Your task to perform on an android device: search for starred emails in the gmail app Image 0: 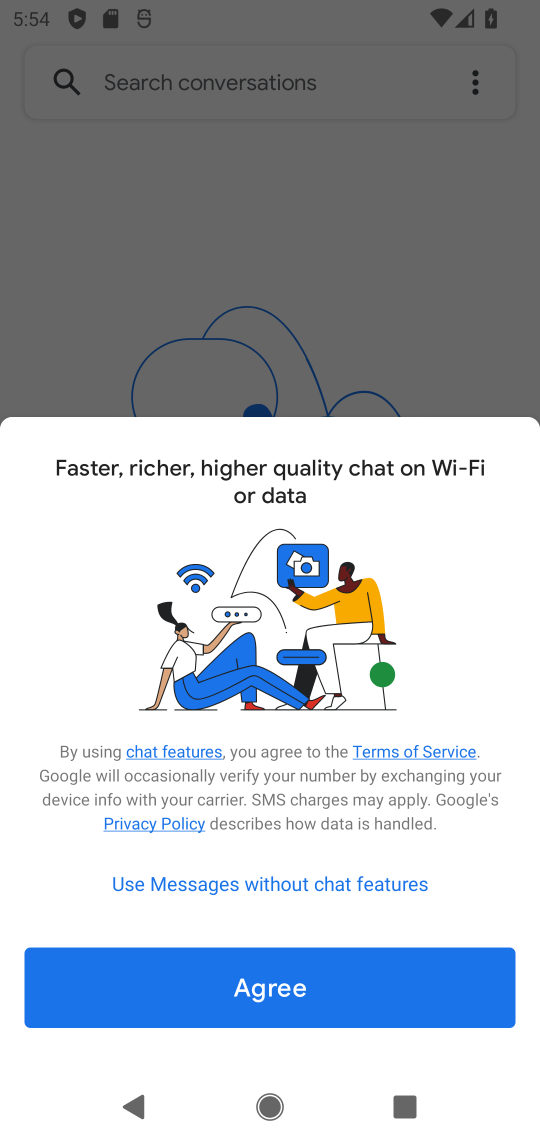
Step 0: press home button
Your task to perform on an android device: search for starred emails in the gmail app Image 1: 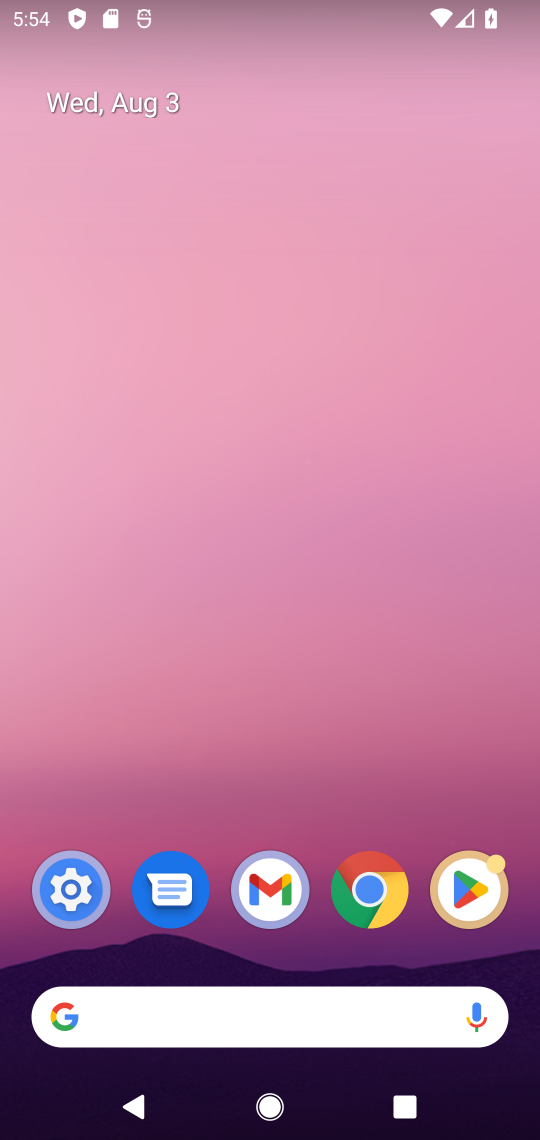
Step 1: click (280, 898)
Your task to perform on an android device: search for starred emails in the gmail app Image 2: 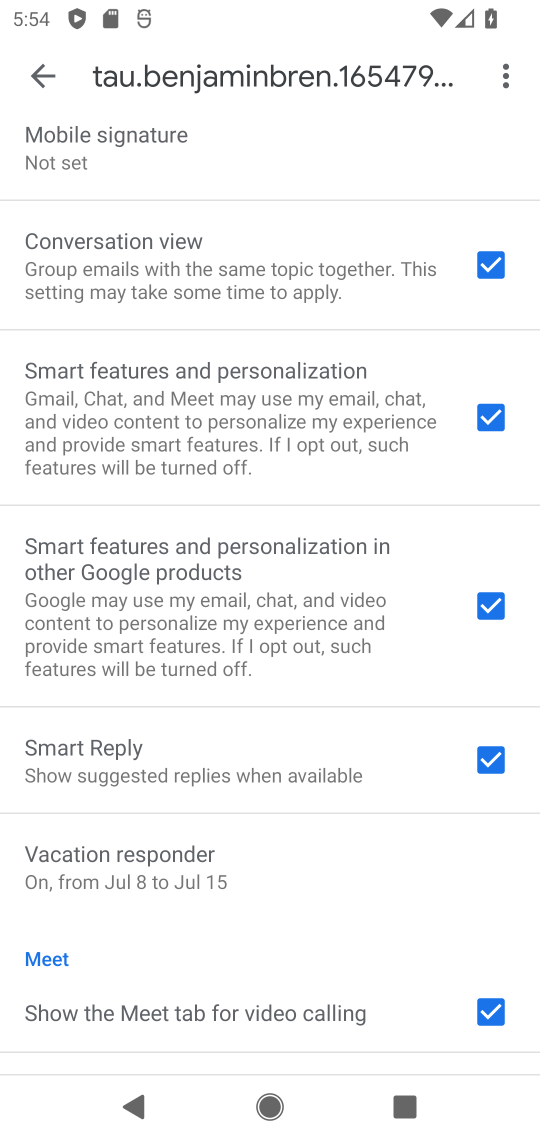
Step 2: press home button
Your task to perform on an android device: search for starred emails in the gmail app Image 3: 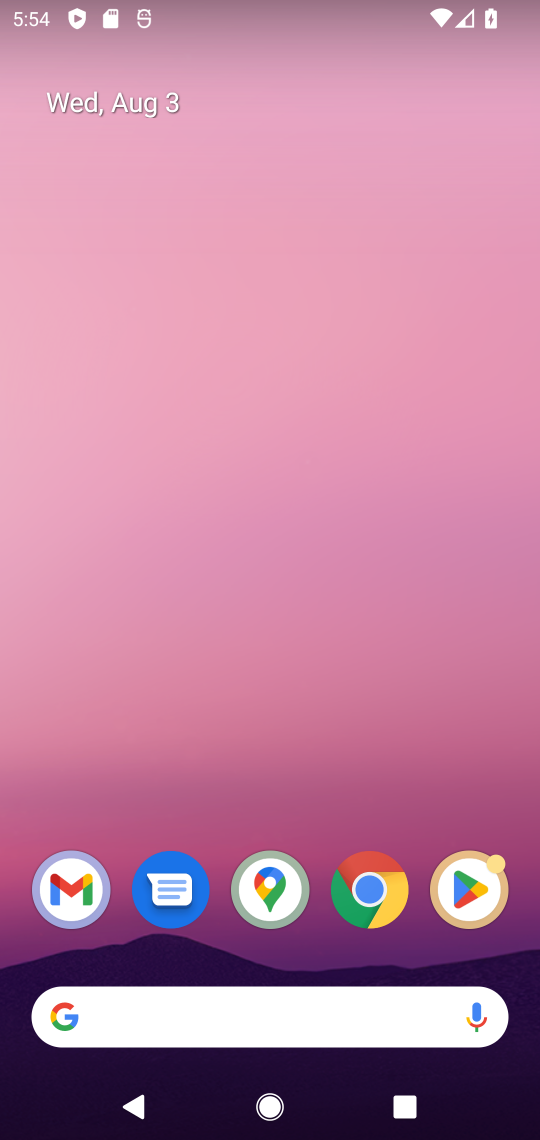
Step 3: click (64, 901)
Your task to perform on an android device: search for starred emails in the gmail app Image 4: 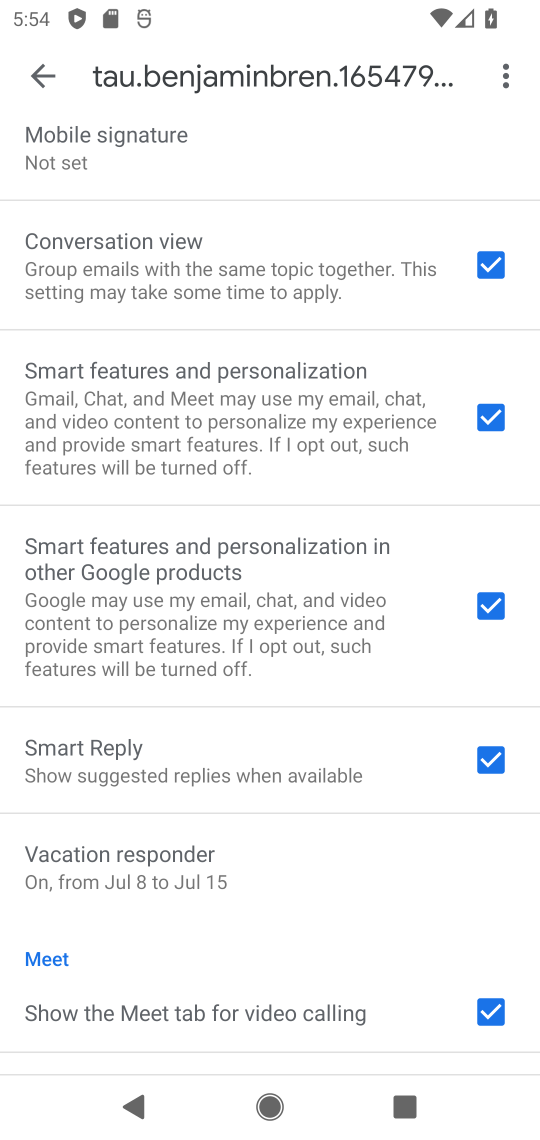
Step 4: click (43, 70)
Your task to perform on an android device: search for starred emails in the gmail app Image 5: 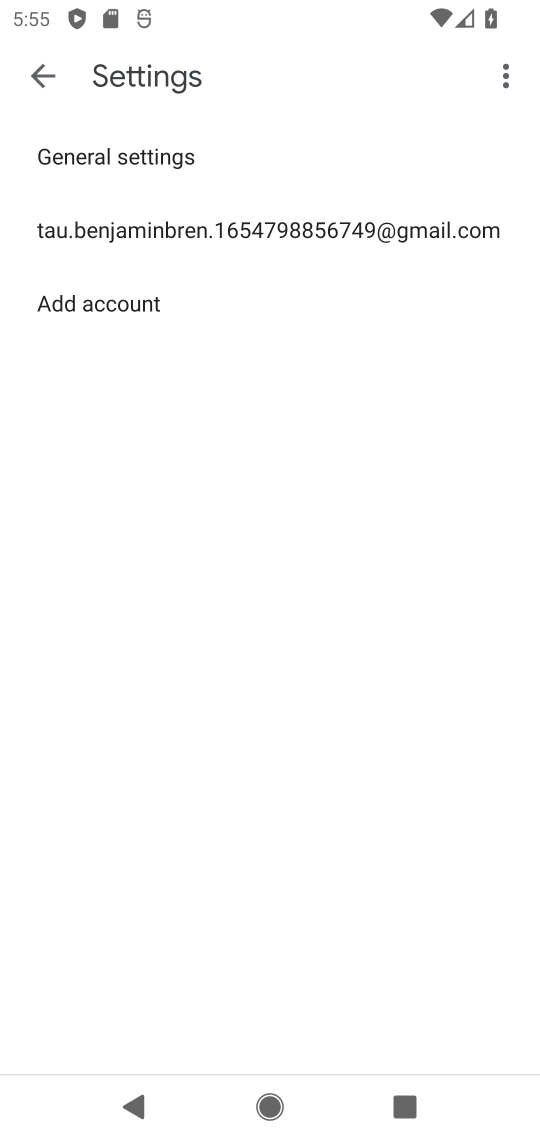
Step 5: click (47, 71)
Your task to perform on an android device: search for starred emails in the gmail app Image 6: 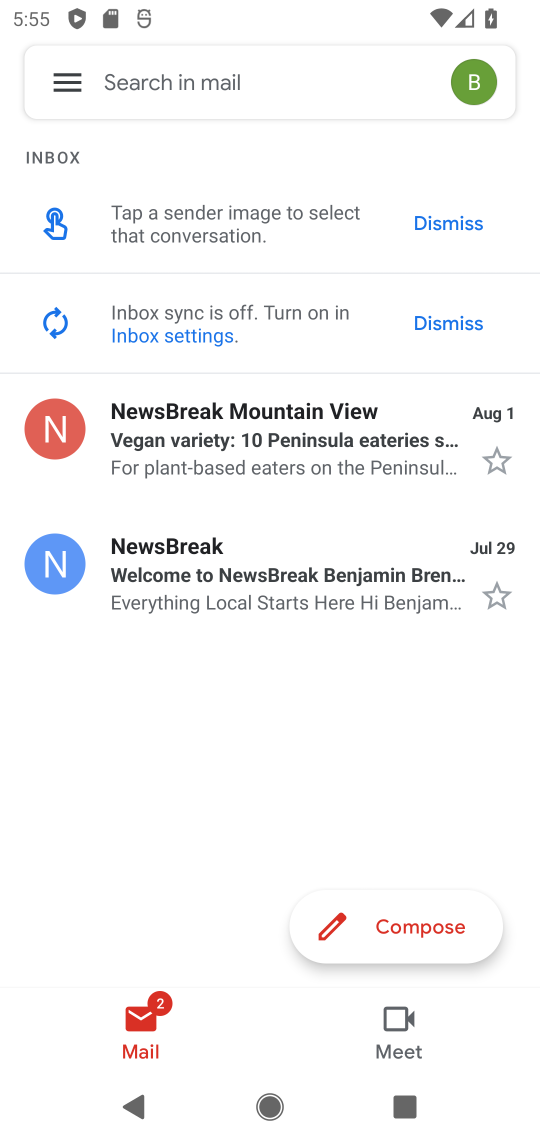
Step 6: click (63, 86)
Your task to perform on an android device: search for starred emails in the gmail app Image 7: 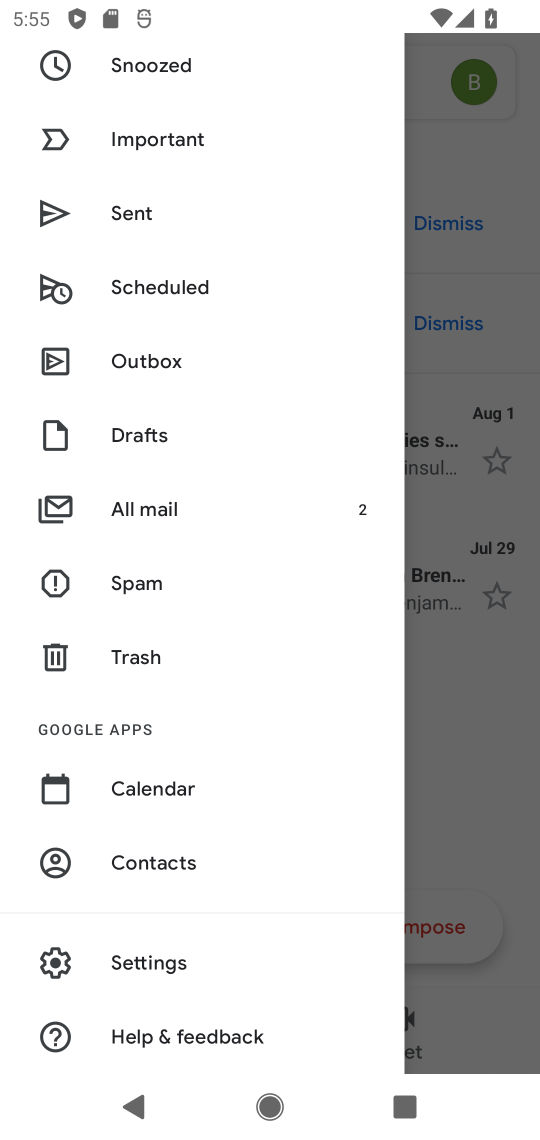
Step 7: drag from (188, 415) to (257, 919)
Your task to perform on an android device: search for starred emails in the gmail app Image 8: 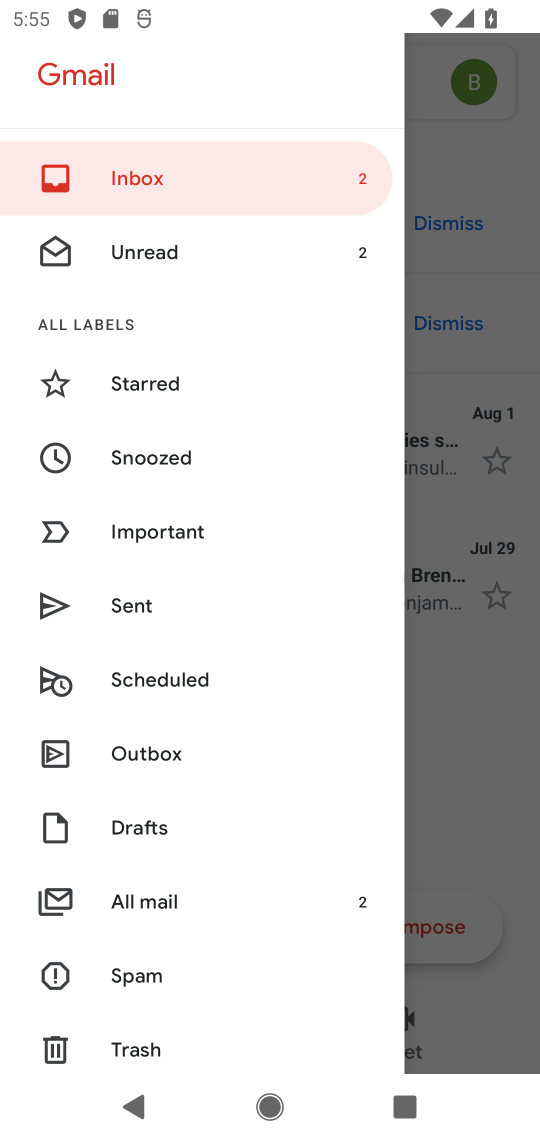
Step 8: click (164, 371)
Your task to perform on an android device: search for starred emails in the gmail app Image 9: 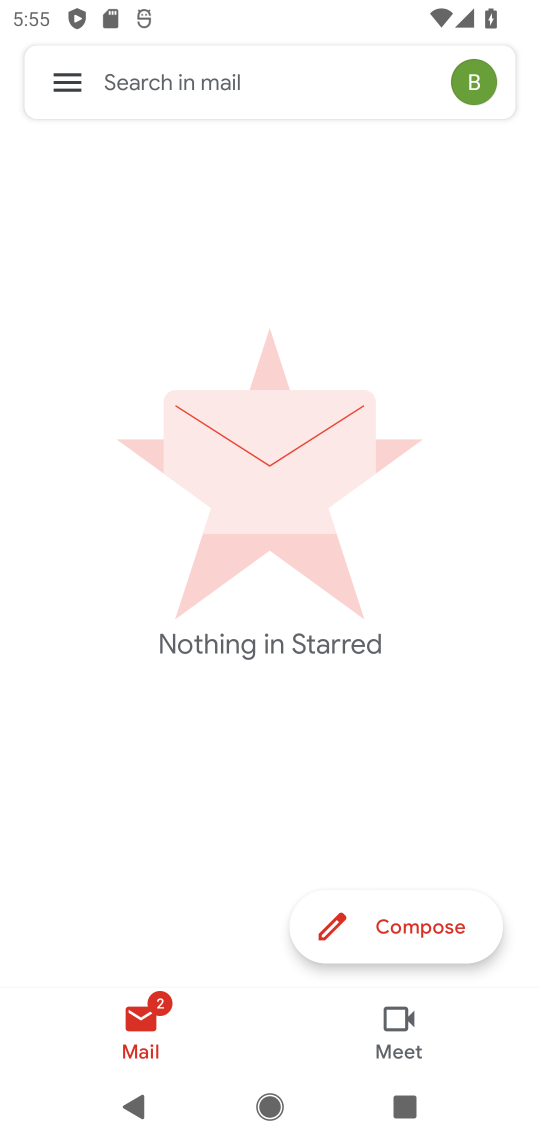
Step 9: task complete